Your task to perform on an android device: change your default location settings in chrome Image 0: 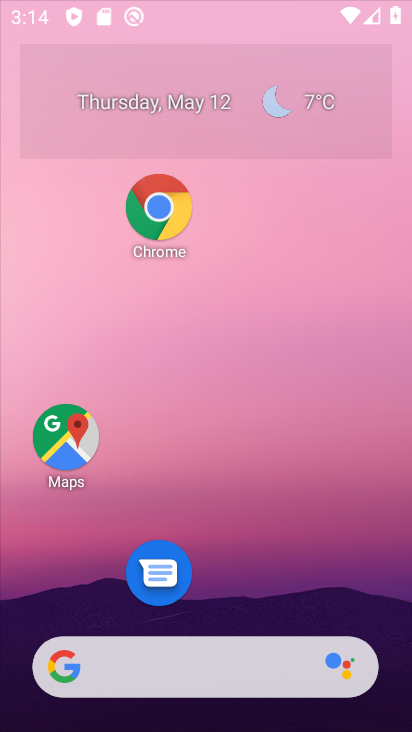
Step 0: click (339, 47)
Your task to perform on an android device: change your default location settings in chrome Image 1: 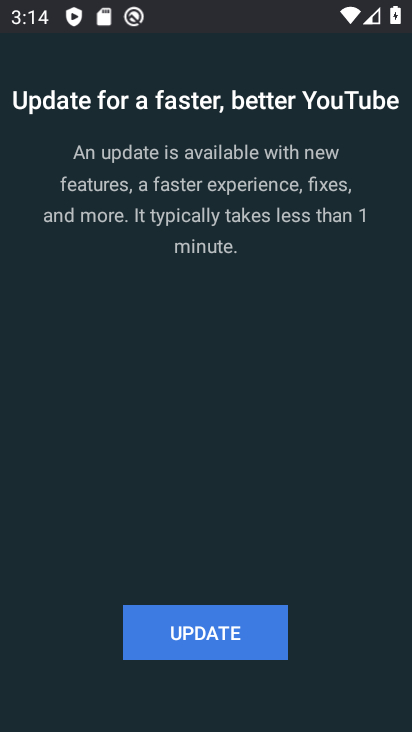
Step 1: press home button
Your task to perform on an android device: change your default location settings in chrome Image 2: 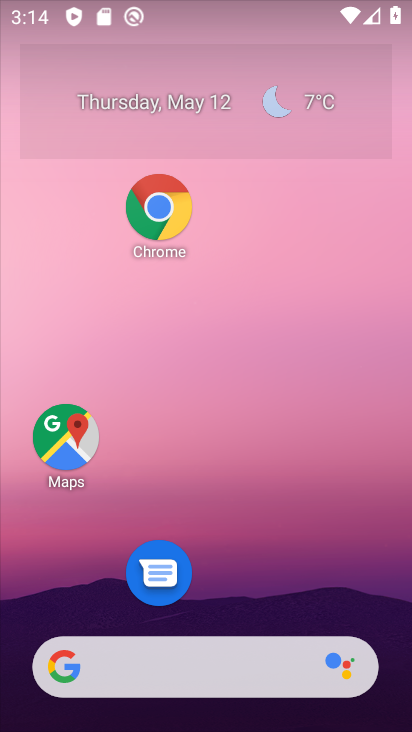
Step 2: drag from (285, 574) to (309, 117)
Your task to perform on an android device: change your default location settings in chrome Image 3: 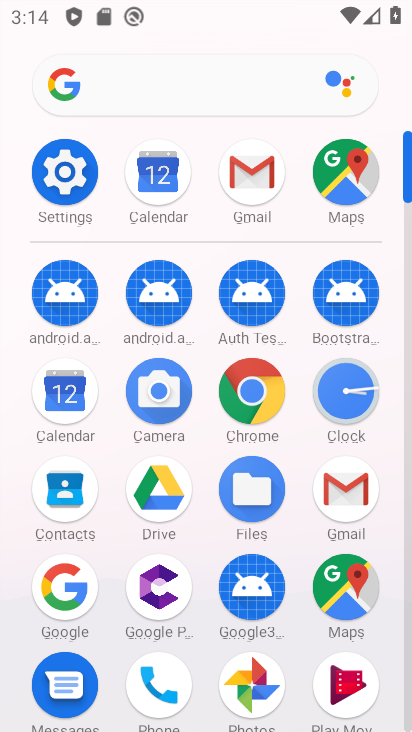
Step 3: click (232, 390)
Your task to perform on an android device: change your default location settings in chrome Image 4: 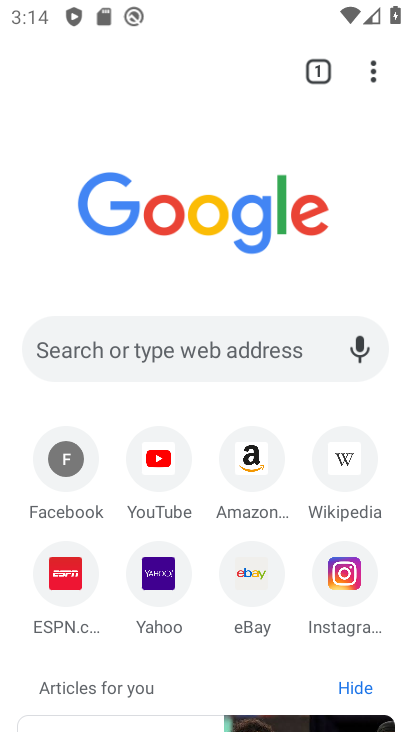
Step 4: click (383, 88)
Your task to perform on an android device: change your default location settings in chrome Image 5: 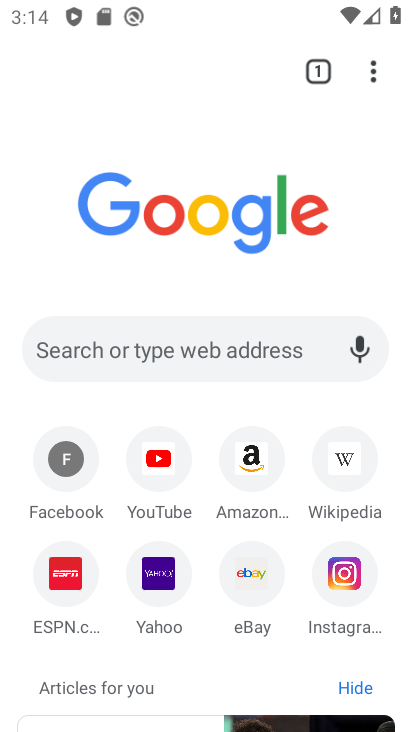
Step 5: click (366, 93)
Your task to perform on an android device: change your default location settings in chrome Image 6: 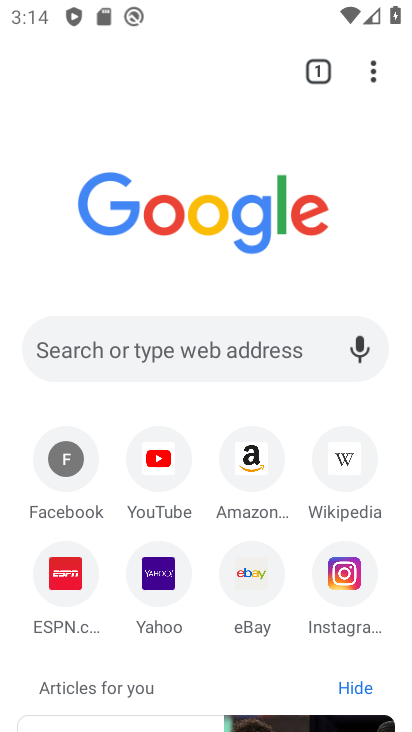
Step 6: click (374, 72)
Your task to perform on an android device: change your default location settings in chrome Image 7: 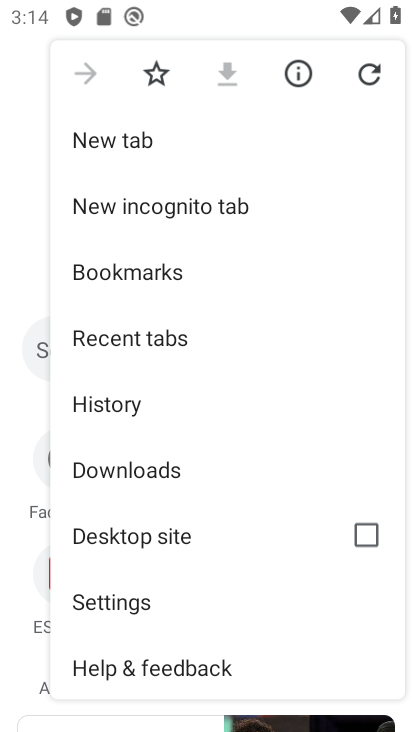
Step 7: click (137, 602)
Your task to perform on an android device: change your default location settings in chrome Image 8: 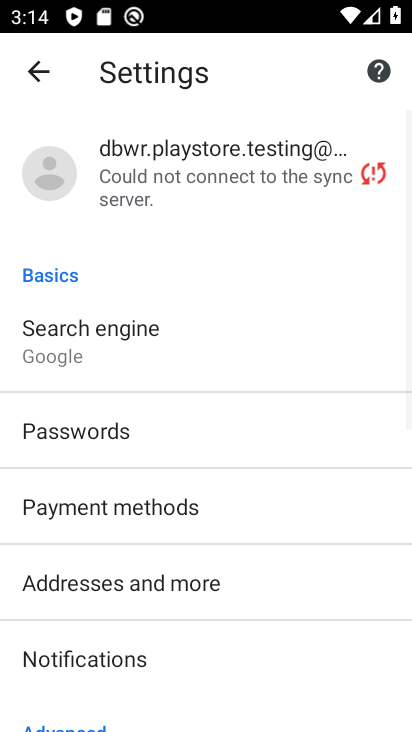
Step 8: drag from (144, 578) to (222, 137)
Your task to perform on an android device: change your default location settings in chrome Image 9: 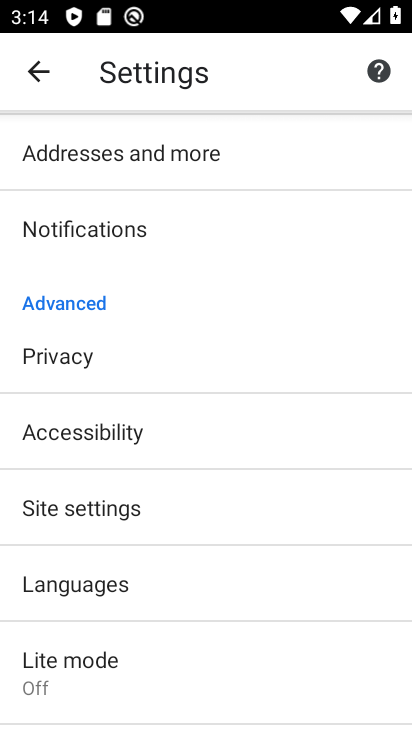
Step 9: drag from (148, 521) to (212, 229)
Your task to perform on an android device: change your default location settings in chrome Image 10: 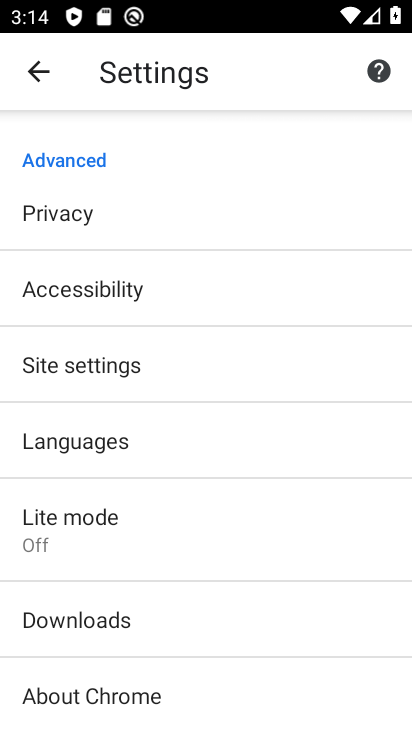
Step 10: click (92, 362)
Your task to perform on an android device: change your default location settings in chrome Image 11: 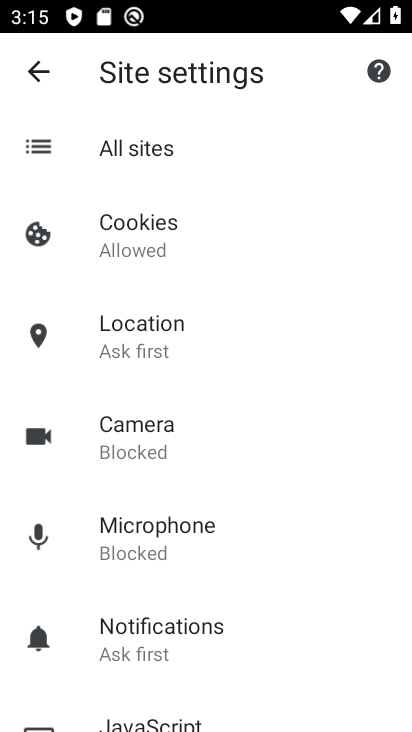
Step 11: click (147, 342)
Your task to perform on an android device: change your default location settings in chrome Image 12: 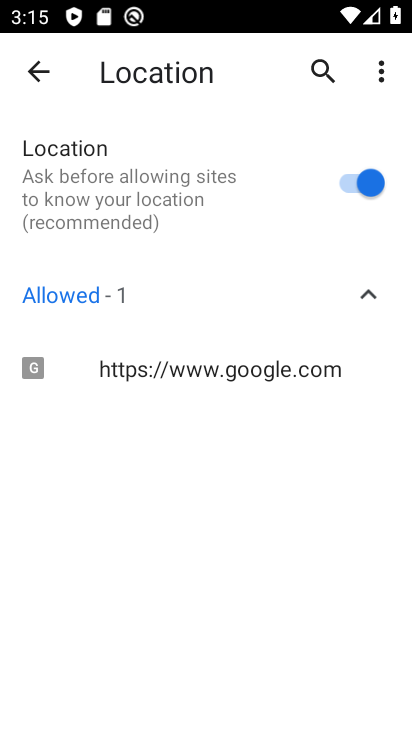
Step 12: click (304, 175)
Your task to perform on an android device: change your default location settings in chrome Image 13: 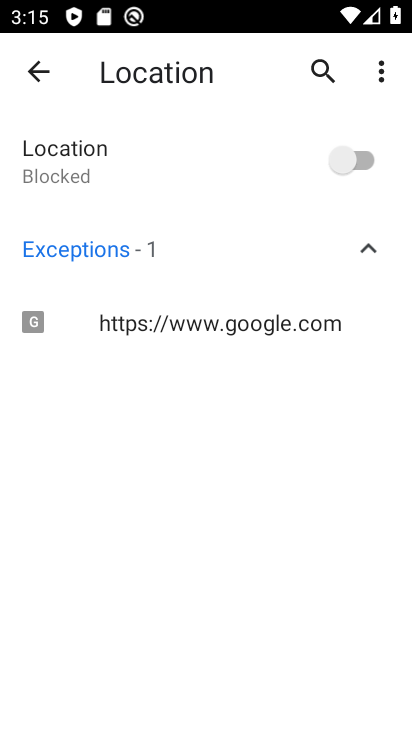
Step 13: task complete